Your task to perform on an android device: Go to notification settings Image 0: 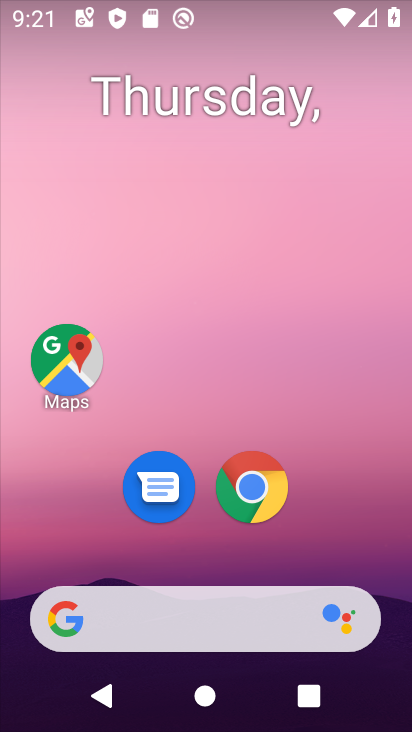
Step 0: drag from (329, 548) to (184, 268)
Your task to perform on an android device: Go to notification settings Image 1: 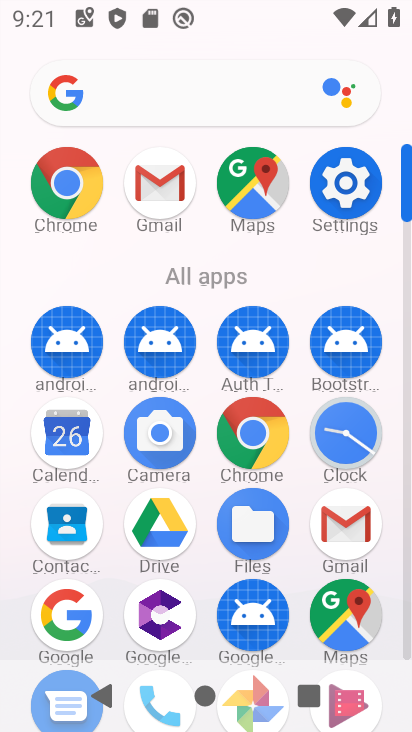
Step 1: click (336, 189)
Your task to perform on an android device: Go to notification settings Image 2: 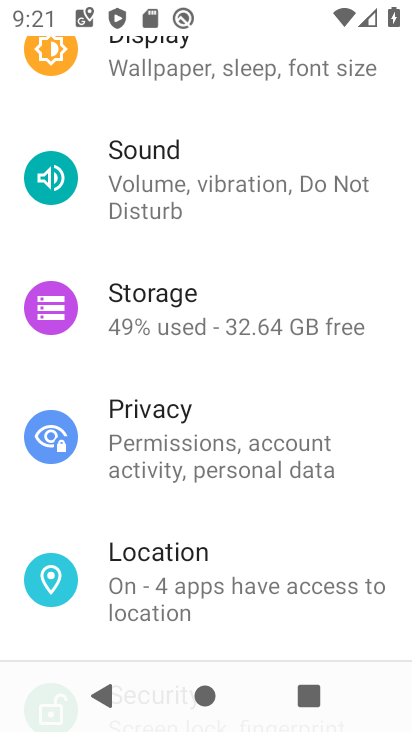
Step 2: drag from (336, 189) to (335, 696)
Your task to perform on an android device: Go to notification settings Image 3: 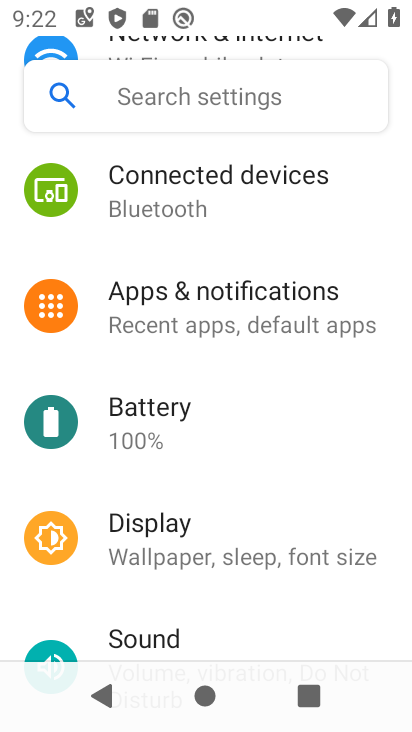
Step 3: click (260, 326)
Your task to perform on an android device: Go to notification settings Image 4: 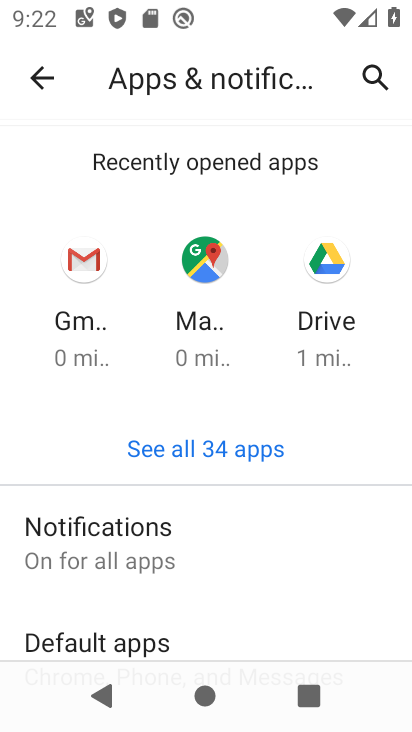
Step 4: click (82, 546)
Your task to perform on an android device: Go to notification settings Image 5: 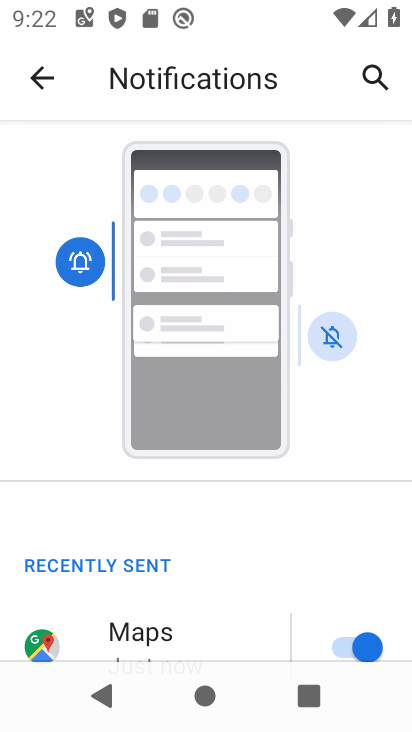
Step 5: task complete